Your task to perform on an android device: Open Google Chrome and open the bookmarks view Image 0: 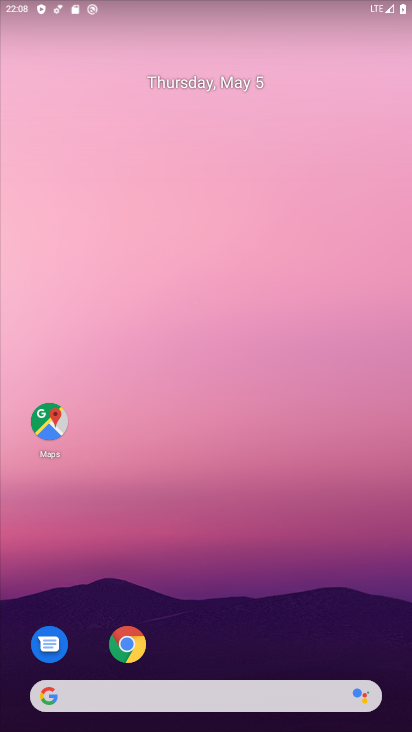
Step 0: click (118, 641)
Your task to perform on an android device: Open Google Chrome and open the bookmarks view Image 1: 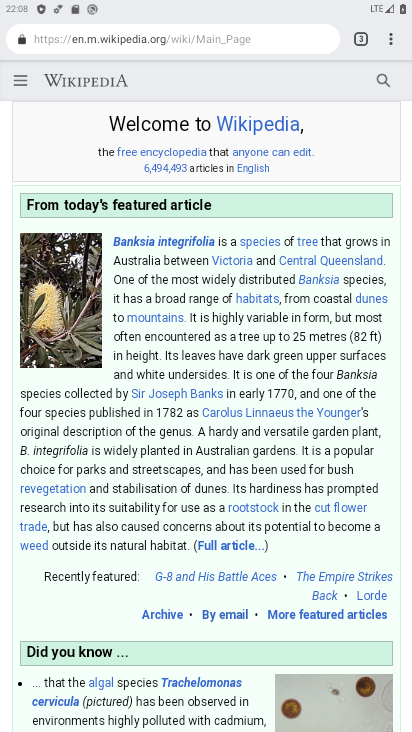
Step 1: click (382, 37)
Your task to perform on an android device: Open Google Chrome and open the bookmarks view Image 2: 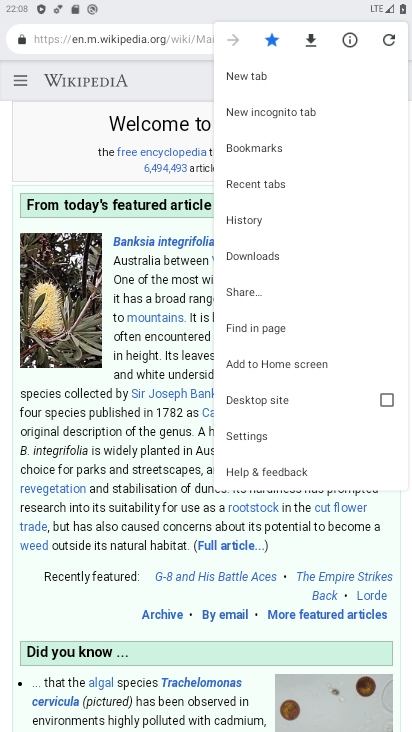
Step 2: click (261, 138)
Your task to perform on an android device: Open Google Chrome and open the bookmarks view Image 3: 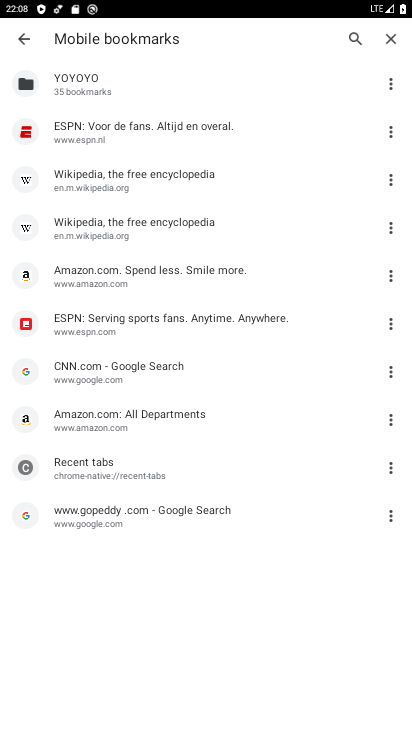
Step 3: task complete